Your task to perform on an android device: Open Google Maps Image 0: 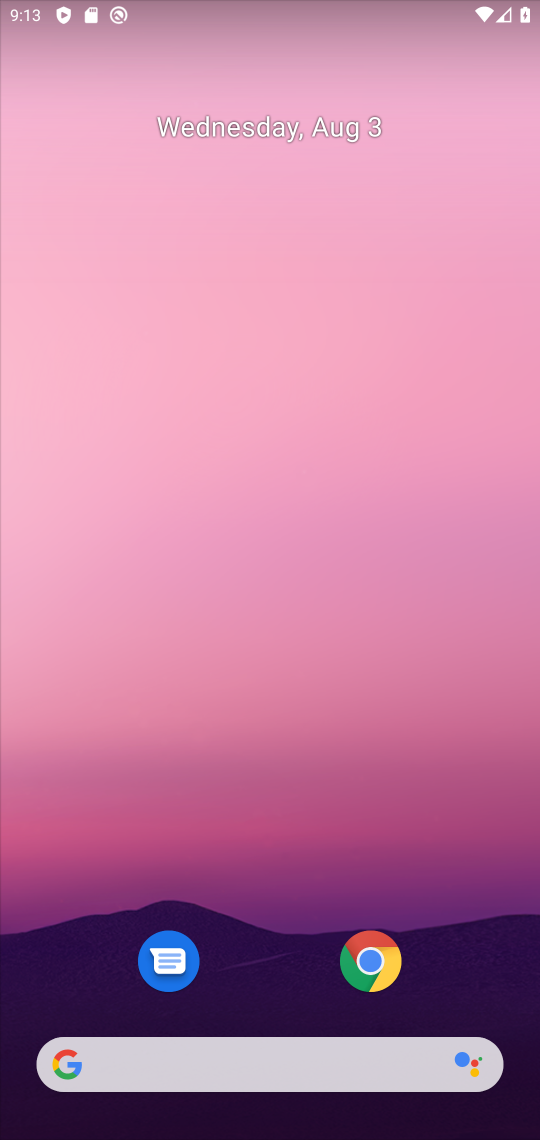
Step 0: drag from (286, 1004) to (447, 349)
Your task to perform on an android device: Open Google Maps Image 1: 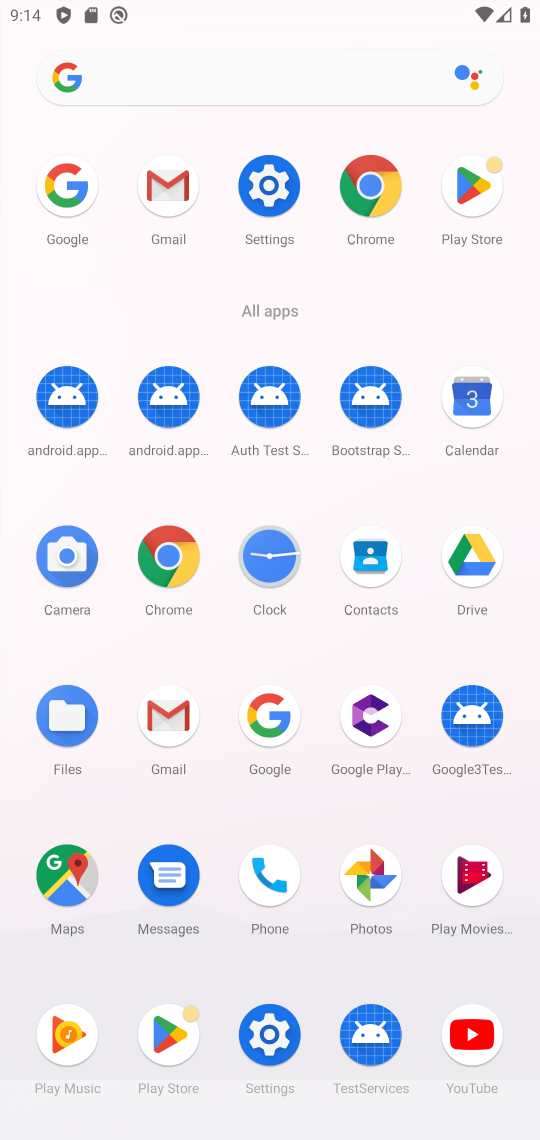
Step 1: click (57, 881)
Your task to perform on an android device: Open Google Maps Image 2: 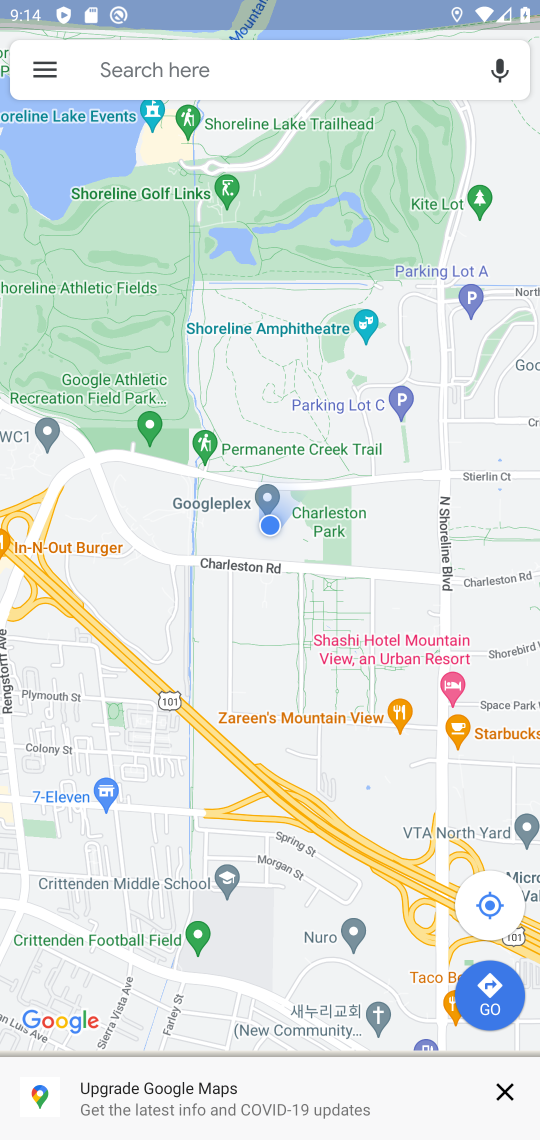
Step 2: task complete